Your task to perform on an android device: Open notification settings Image 0: 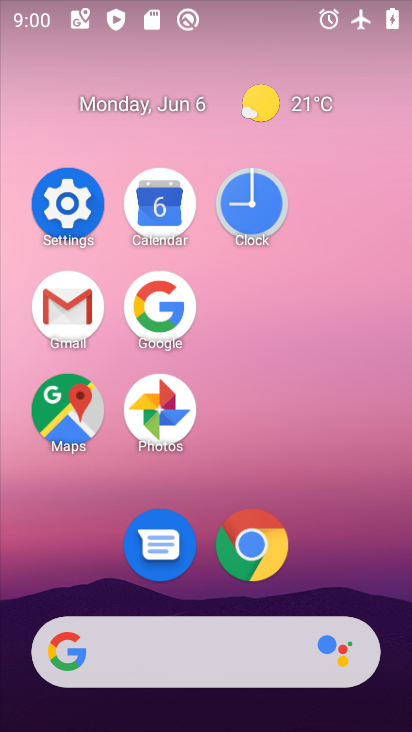
Step 0: click (55, 189)
Your task to perform on an android device: Open notification settings Image 1: 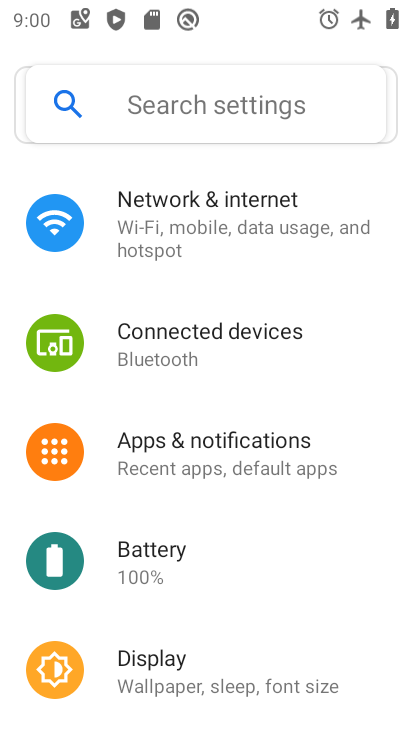
Step 1: click (223, 458)
Your task to perform on an android device: Open notification settings Image 2: 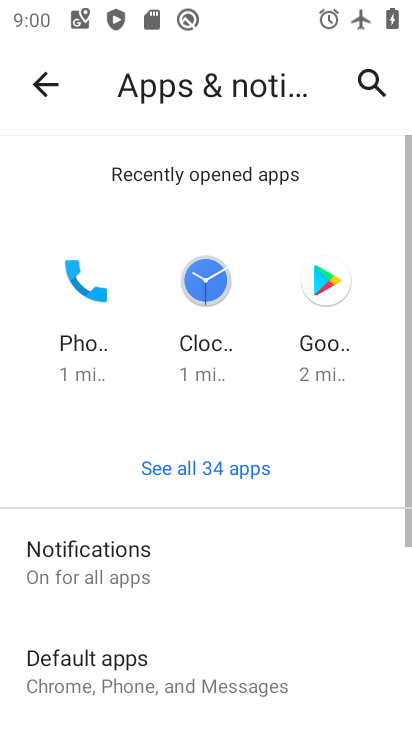
Step 2: task complete